Your task to perform on an android device: Go to Wikipedia Image 0: 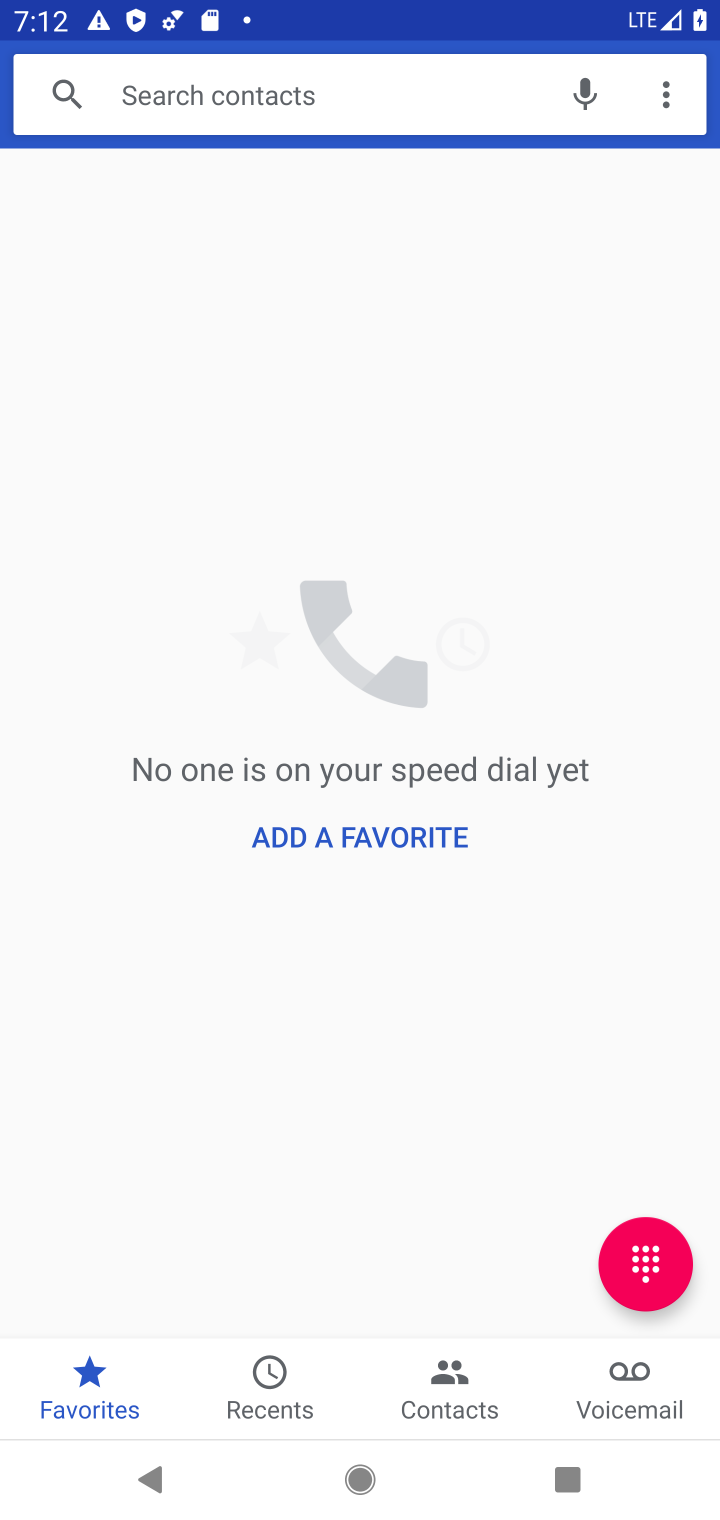
Step 0: press home button
Your task to perform on an android device: Go to Wikipedia Image 1: 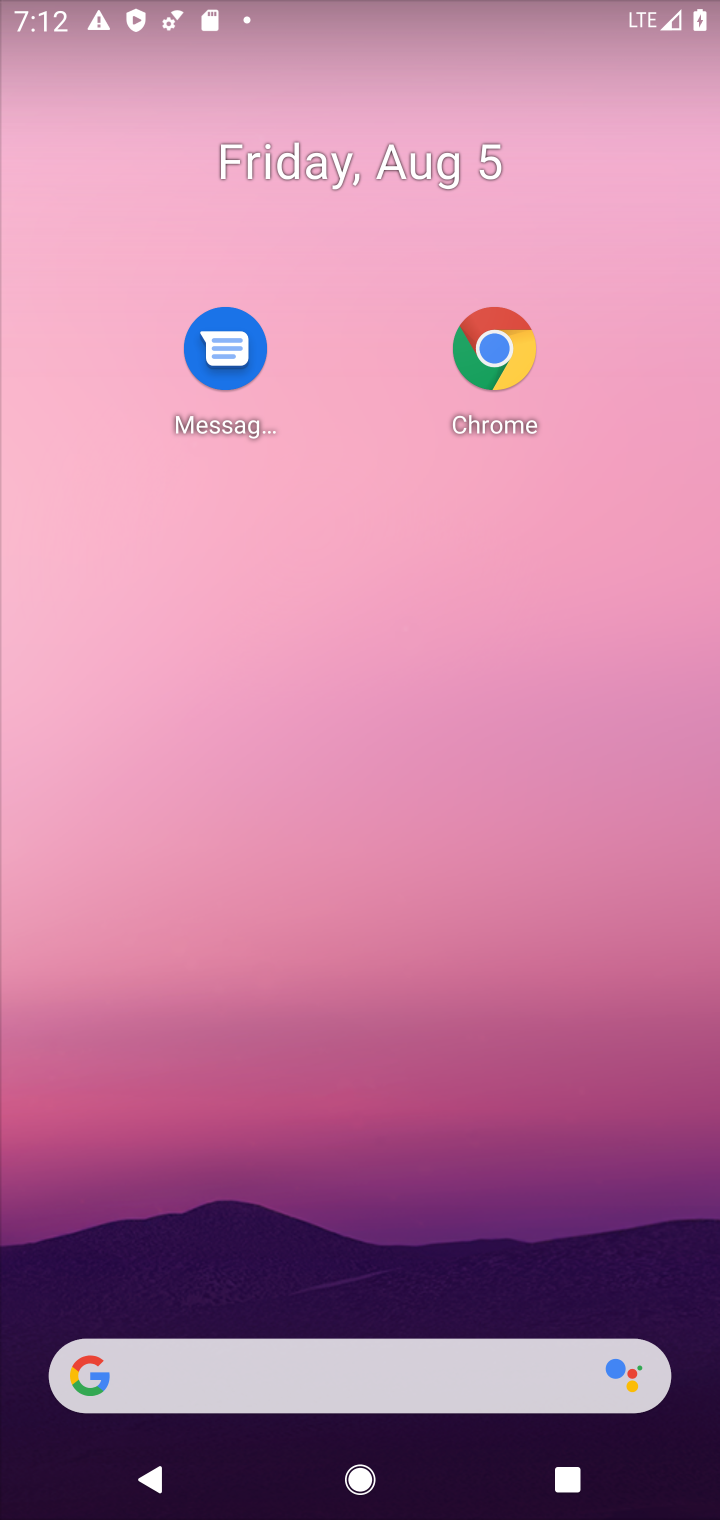
Step 1: click (489, 308)
Your task to perform on an android device: Go to Wikipedia Image 2: 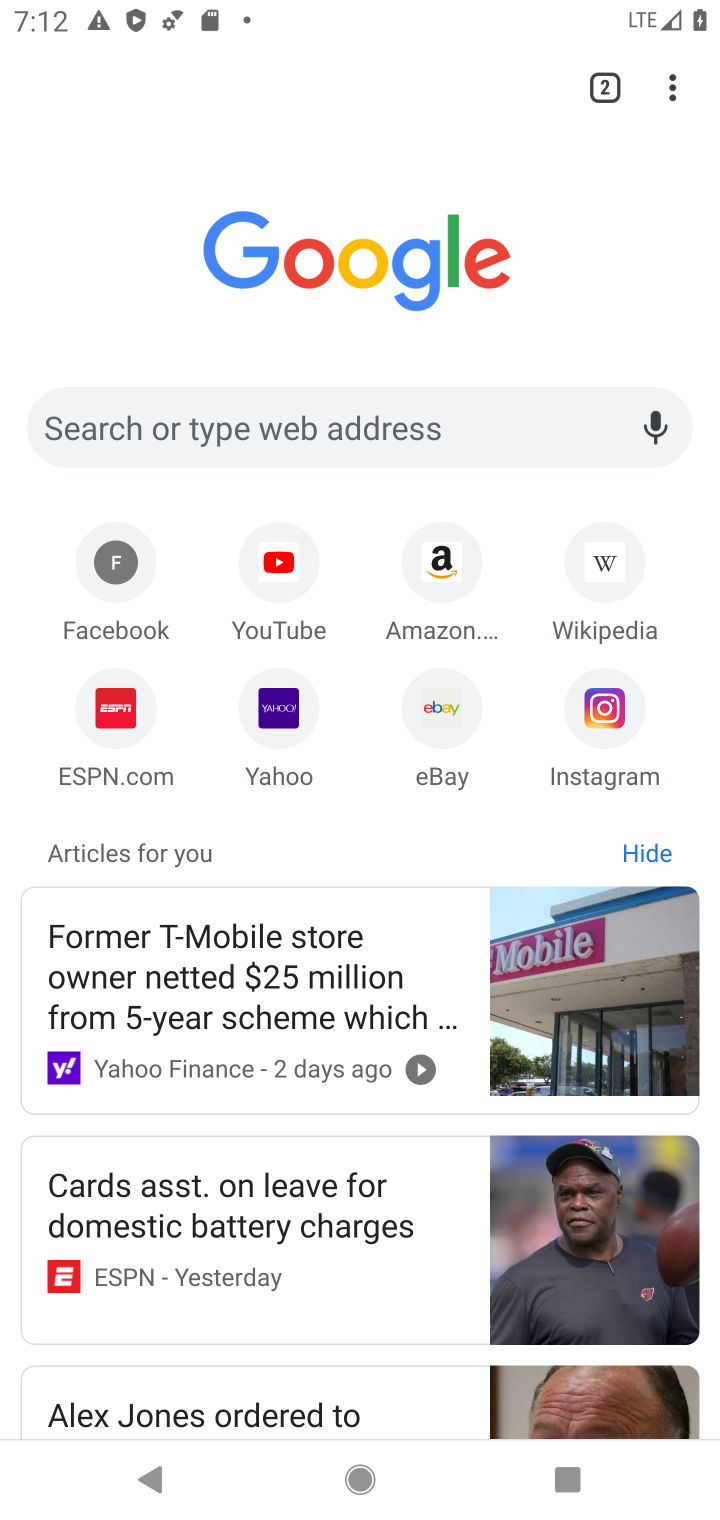
Step 2: click (598, 564)
Your task to perform on an android device: Go to Wikipedia Image 3: 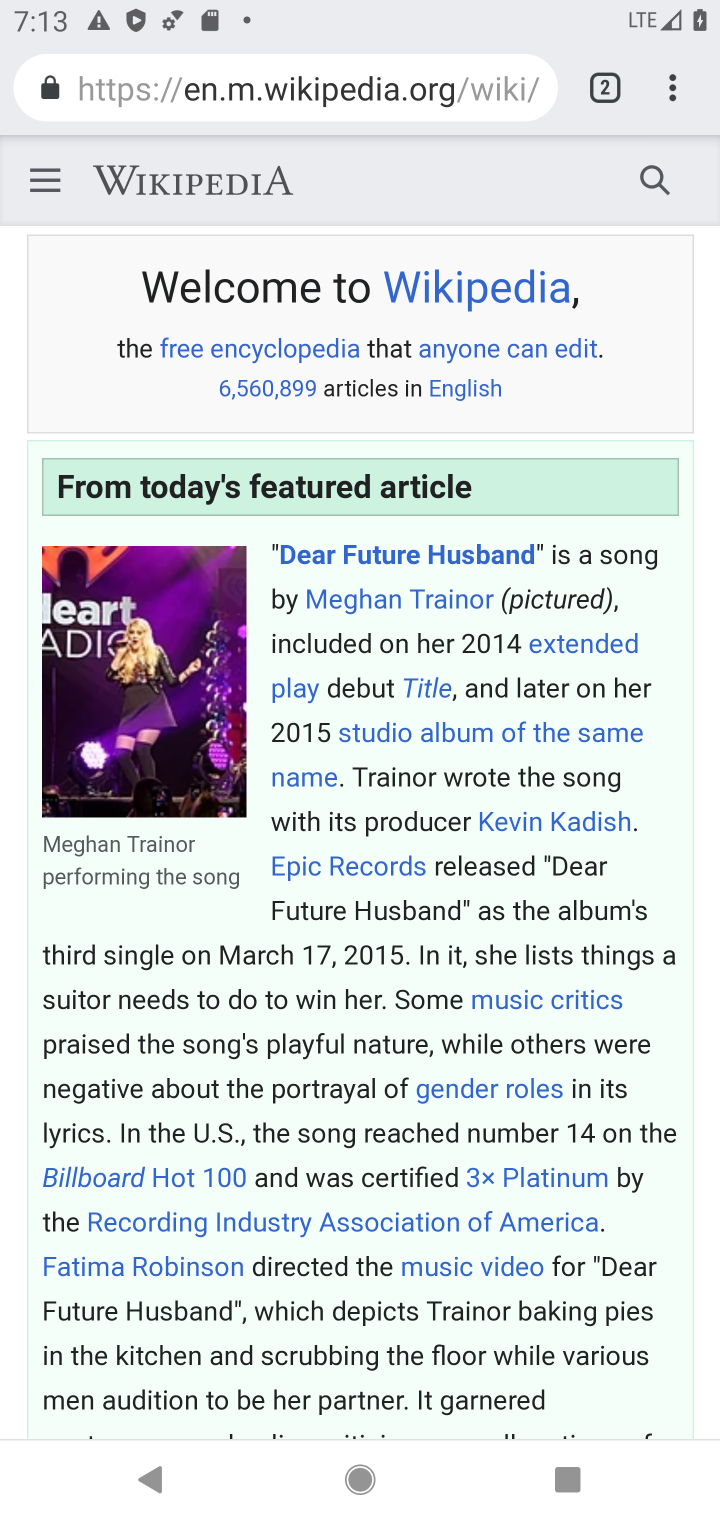
Step 3: task complete